Your task to perform on an android device: snooze an email in the gmail app Image 0: 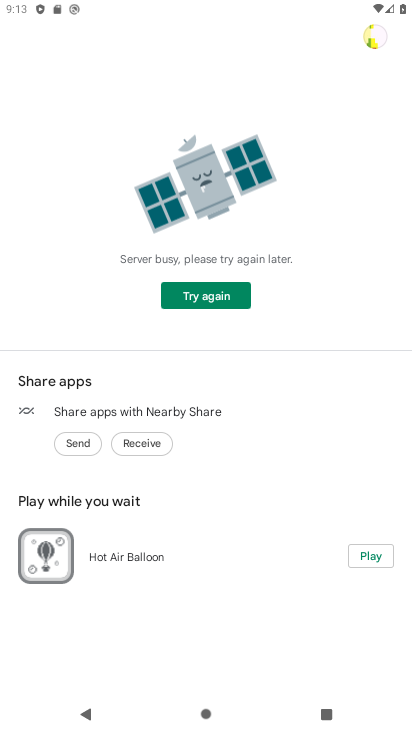
Step 0: press home button
Your task to perform on an android device: snooze an email in the gmail app Image 1: 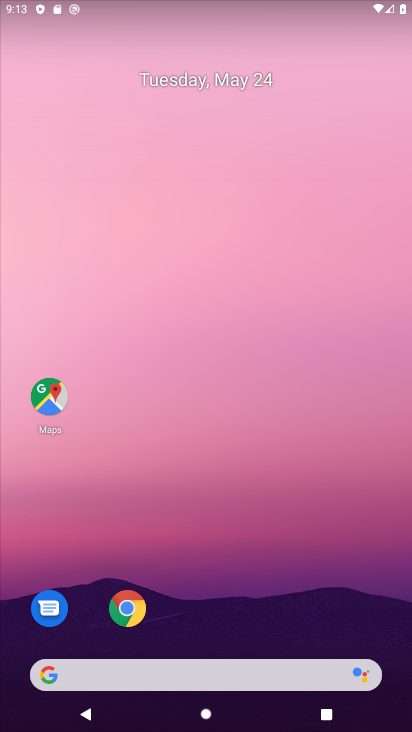
Step 1: drag from (254, 624) to (264, 12)
Your task to perform on an android device: snooze an email in the gmail app Image 2: 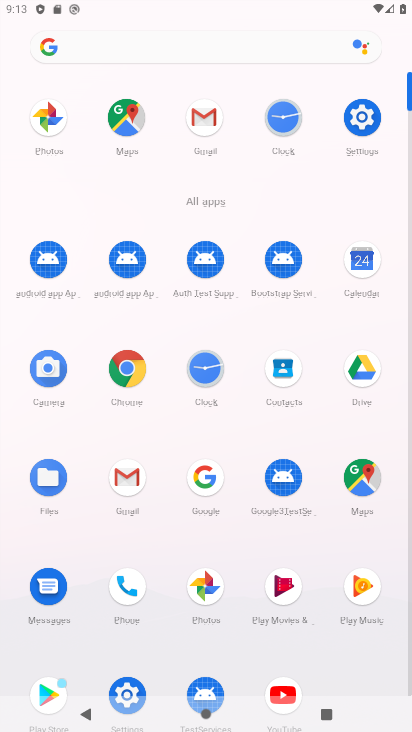
Step 2: click (132, 483)
Your task to perform on an android device: snooze an email in the gmail app Image 3: 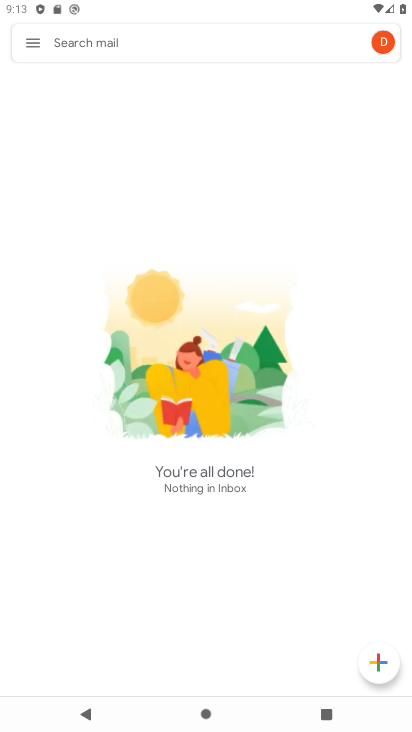
Step 3: click (39, 42)
Your task to perform on an android device: snooze an email in the gmail app Image 4: 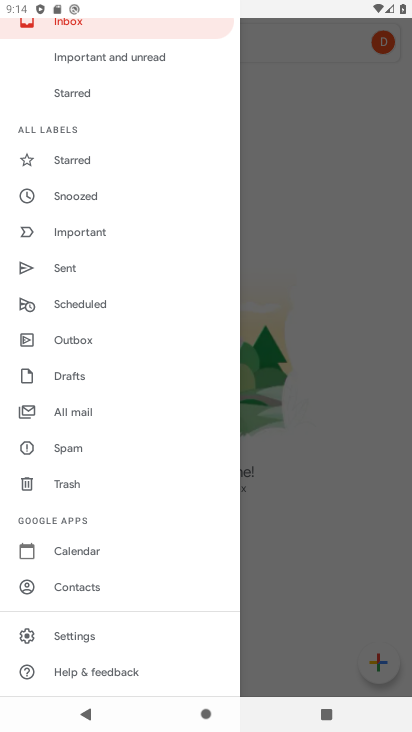
Step 4: click (77, 408)
Your task to perform on an android device: snooze an email in the gmail app Image 5: 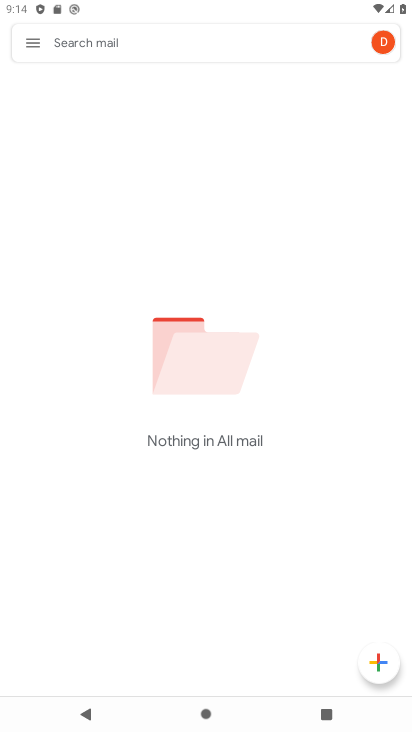
Step 5: task complete